Your task to perform on an android device: Go to Google maps Image 0: 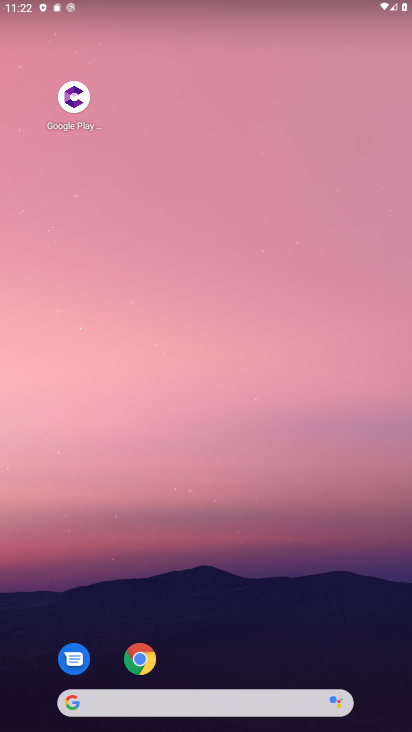
Step 0: drag from (231, 651) to (256, 178)
Your task to perform on an android device: Go to Google maps Image 1: 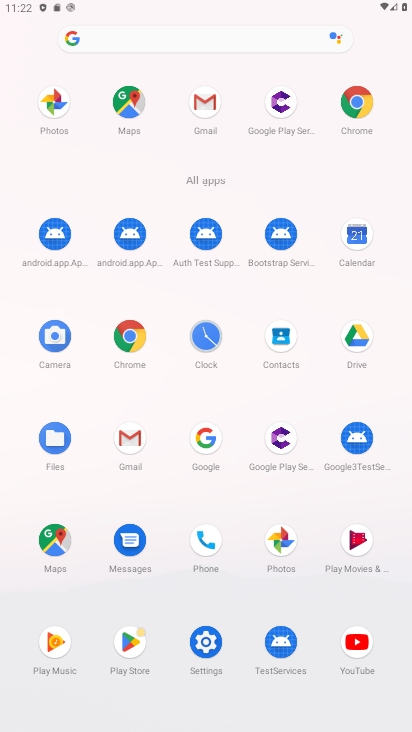
Step 1: click (104, 119)
Your task to perform on an android device: Go to Google maps Image 2: 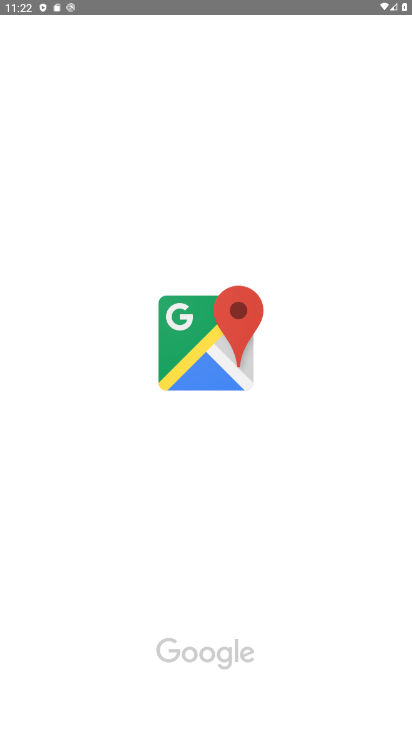
Step 2: task complete